Your task to perform on an android device: toggle notification dots Image 0: 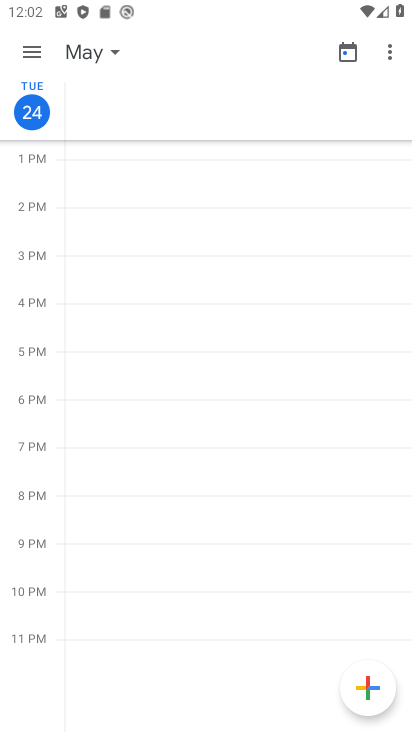
Step 0: drag from (228, 592) to (206, 190)
Your task to perform on an android device: toggle notification dots Image 1: 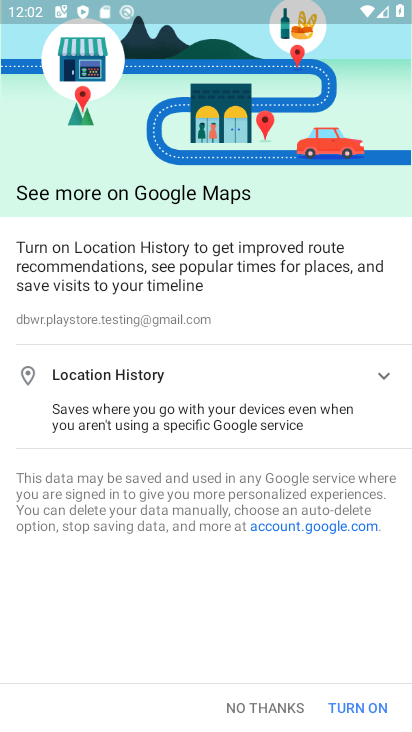
Step 1: press back button
Your task to perform on an android device: toggle notification dots Image 2: 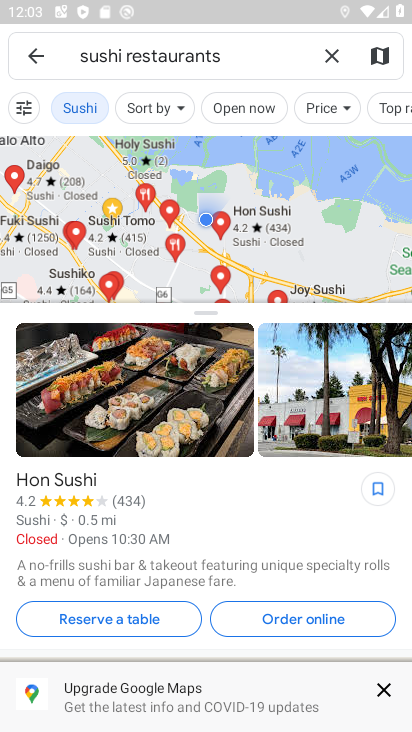
Step 2: press back button
Your task to perform on an android device: toggle notification dots Image 3: 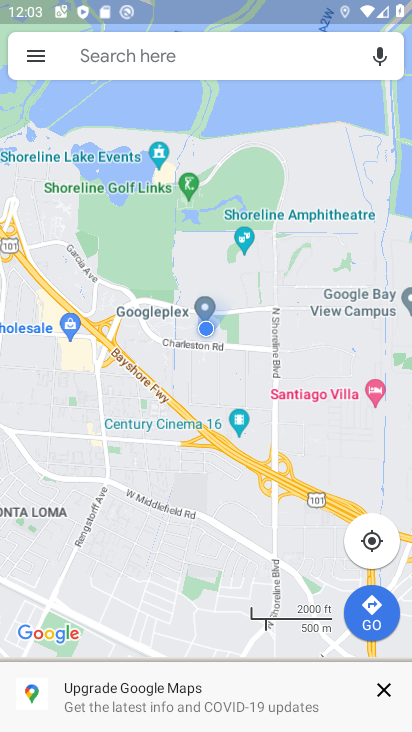
Step 3: press home button
Your task to perform on an android device: toggle notification dots Image 4: 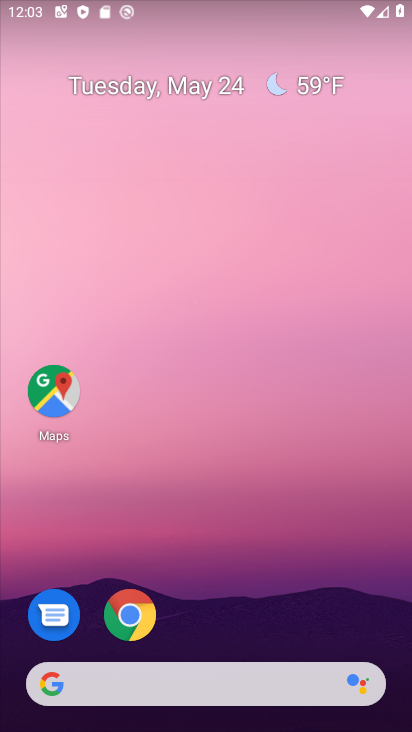
Step 4: drag from (282, 581) to (198, 12)
Your task to perform on an android device: toggle notification dots Image 5: 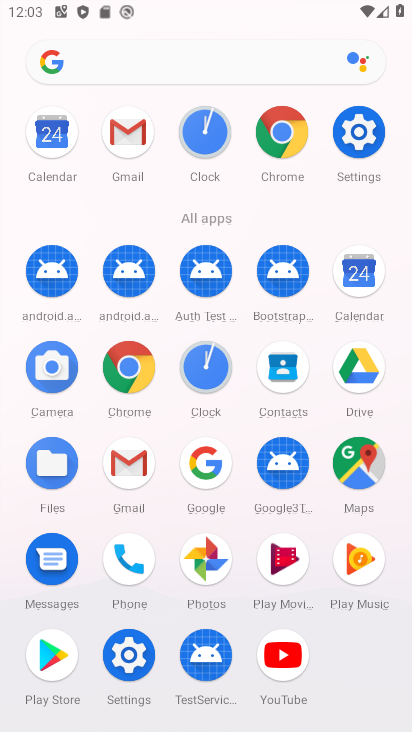
Step 5: click (125, 655)
Your task to perform on an android device: toggle notification dots Image 6: 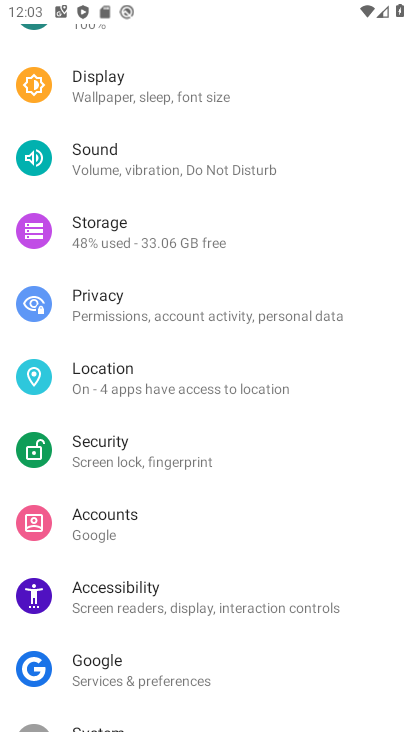
Step 6: drag from (218, 563) to (218, 132)
Your task to perform on an android device: toggle notification dots Image 7: 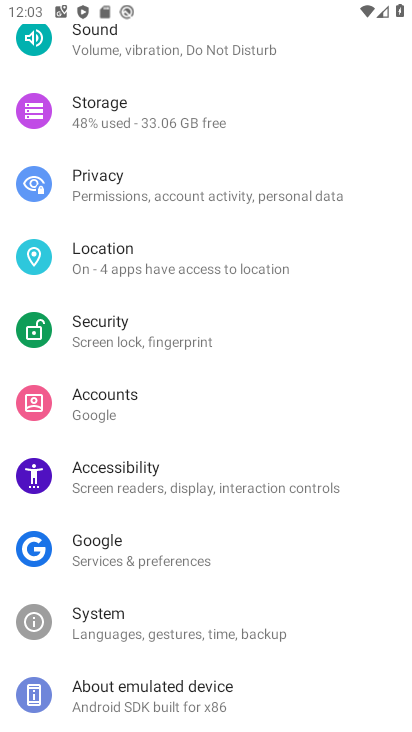
Step 7: drag from (161, 82) to (179, 582)
Your task to perform on an android device: toggle notification dots Image 8: 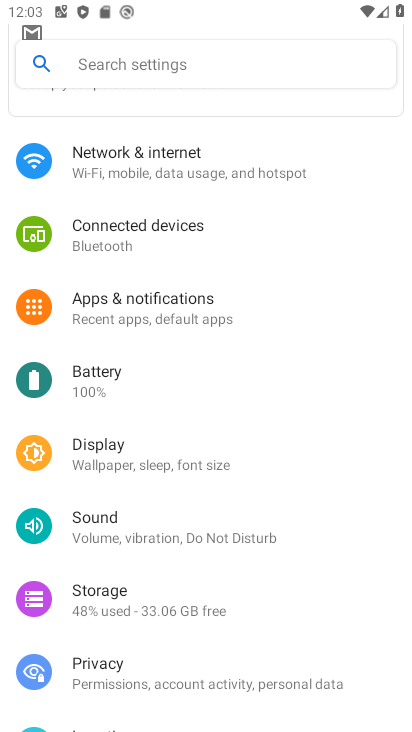
Step 8: click (147, 297)
Your task to perform on an android device: toggle notification dots Image 9: 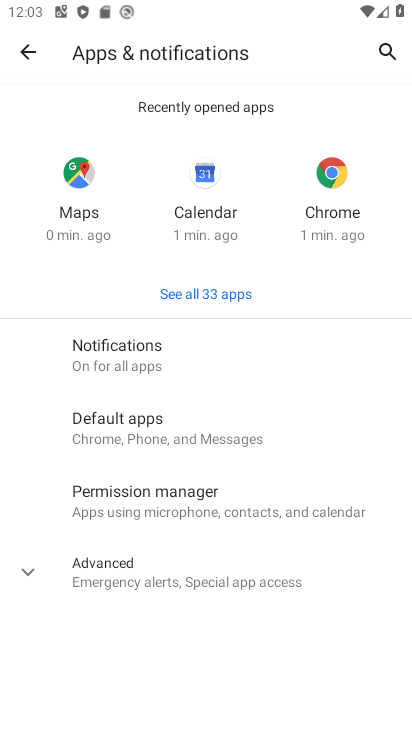
Step 9: click (39, 574)
Your task to perform on an android device: toggle notification dots Image 10: 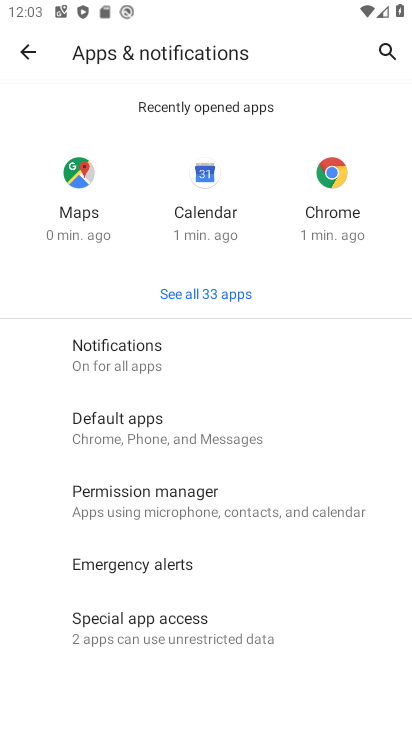
Step 10: click (146, 347)
Your task to perform on an android device: toggle notification dots Image 11: 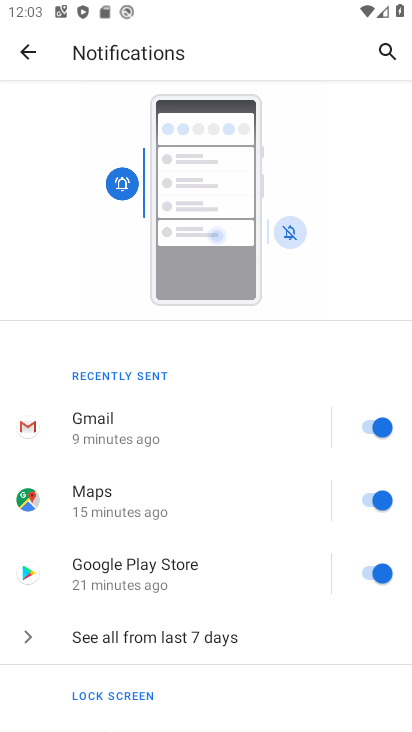
Step 11: drag from (230, 578) to (238, 128)
Your task to perform on an android device: toggle notification dots Image 12: 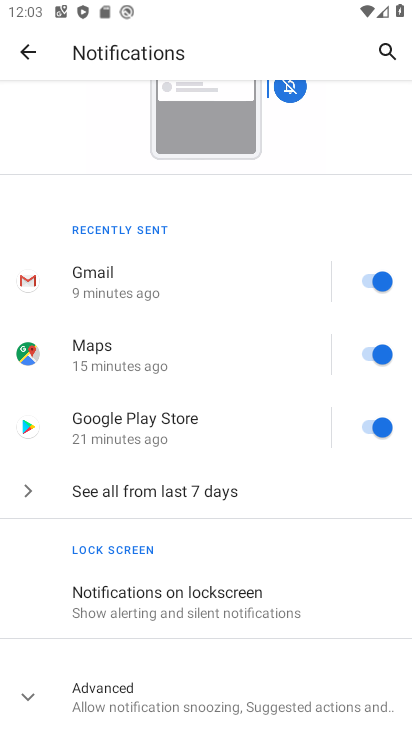
Step 12: click (40, 698)
Your task to perform on an android device: toggle notification dots Image 13: 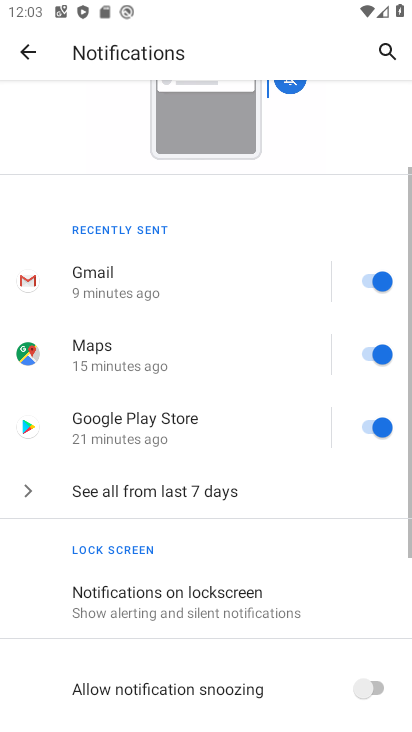
Step 13: drag from (249, 503) to (249, 174)
Your task to perform on an android device: toggle notification dots Image 14: 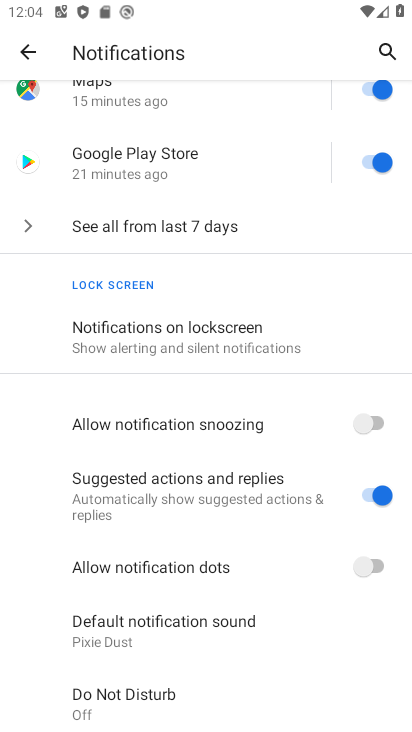
Step 14: click (373, 559)
Your task to perform on an android device: toggle notification dots Image 15: 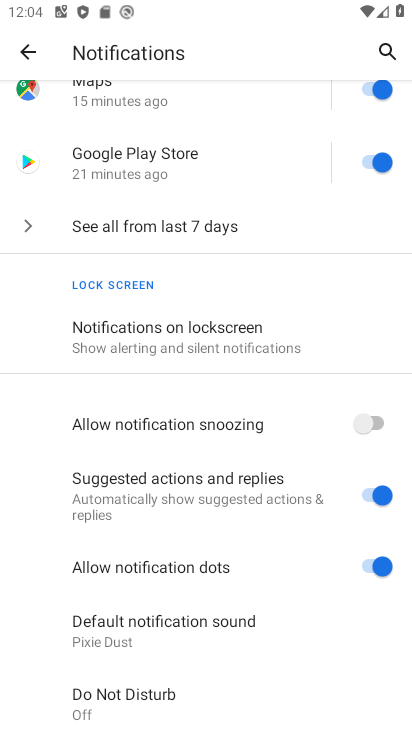
Step 15: click (377, 563)
Your task to perform on an android device: toggle notification dots Image 16: 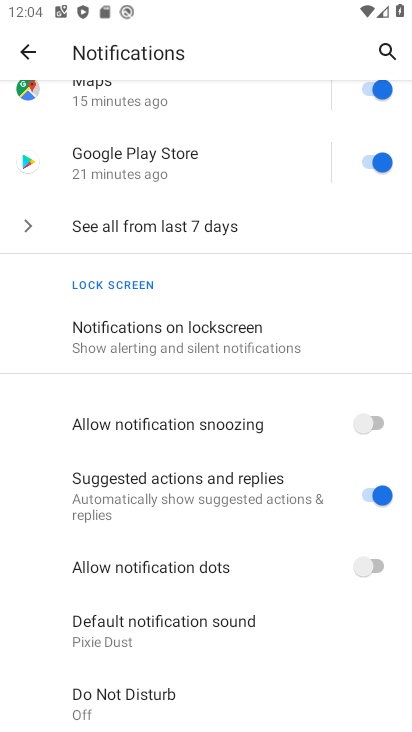
Step 16: task complete